Your task to perform on an android device: change the clock display to analog Image 0: 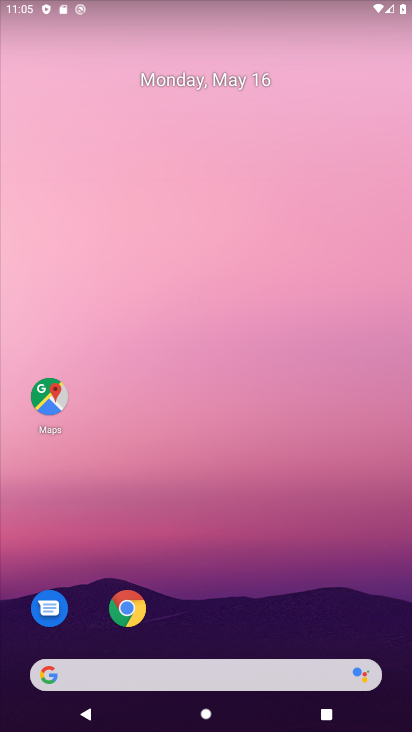
Step 0: press home button
Your task to perform on an android device: change the clock display to analog Image 1: 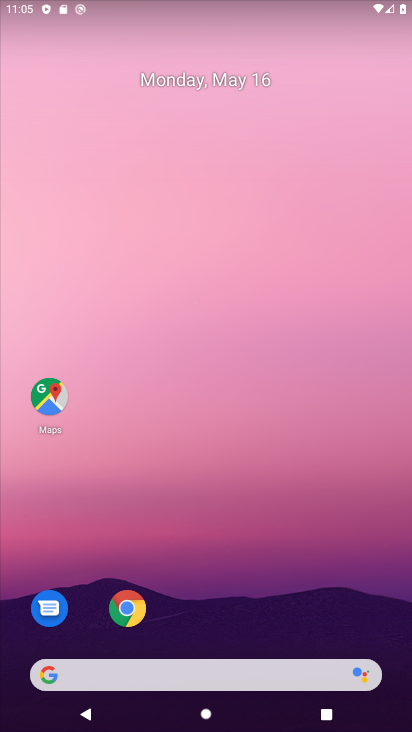
Step 1: drag from (201, 676) to (277, 84)
Your task to perform on an android device: change the clock display to analog Image 2: 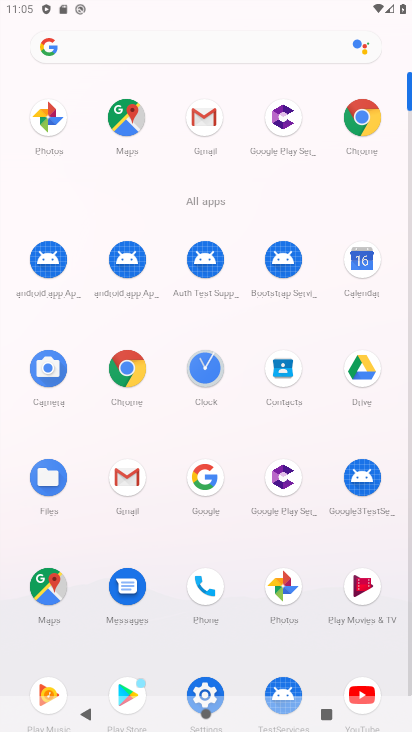
Step 2: click (202, 377)
Your task to perform on an android device: change the clock display to analog Image 3: 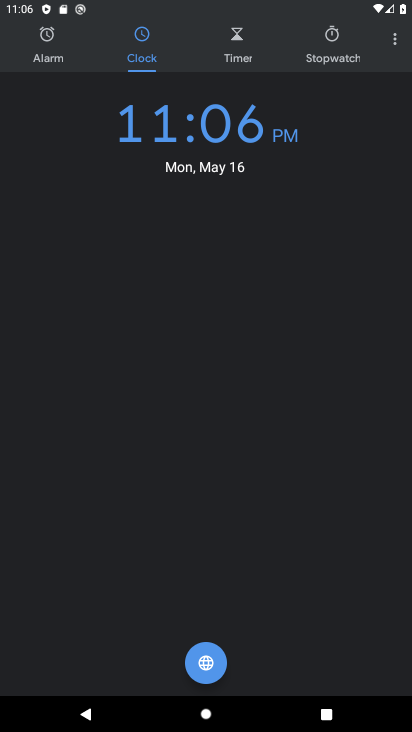
Step 3: click (391, 39)
Your task to perform on an android device: change the clock display to analog Image 4: 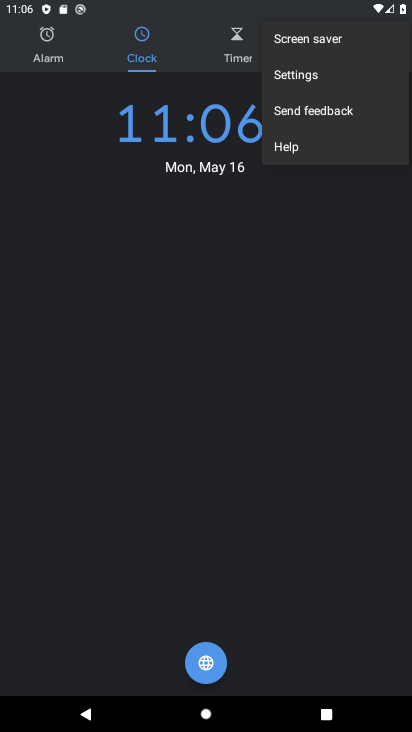
Step 4: click (310, 74)
Your task to perform on an android device: change the clock display to analog Image 5: 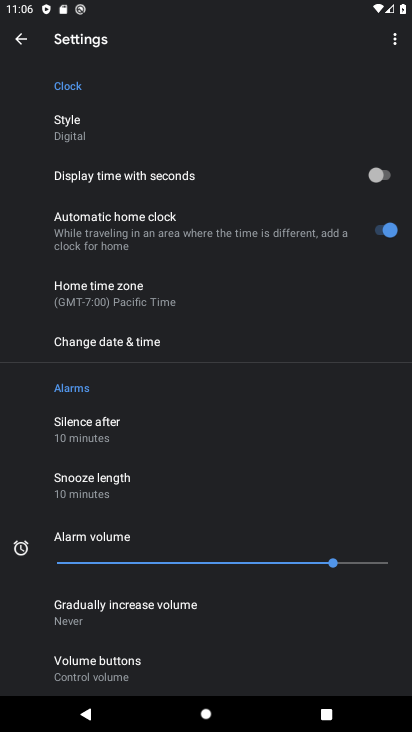
Step 5: click (89, 135)
Your task to perform on an android device: change the clock display to analog Image 6: 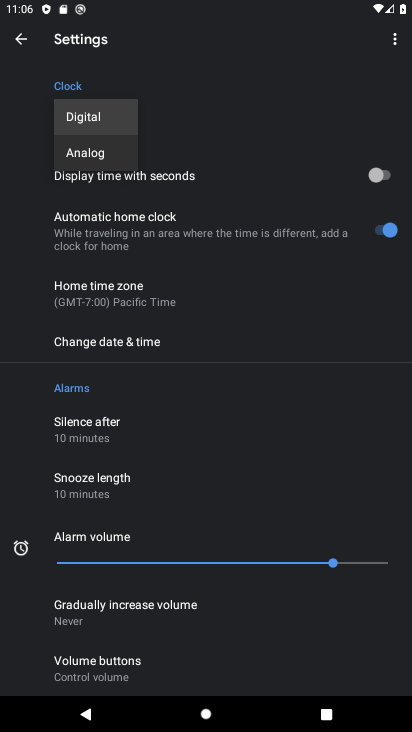
Step 6: click (96, 163)
Your task to perform on an android device: change the clock display to analog Image 7: 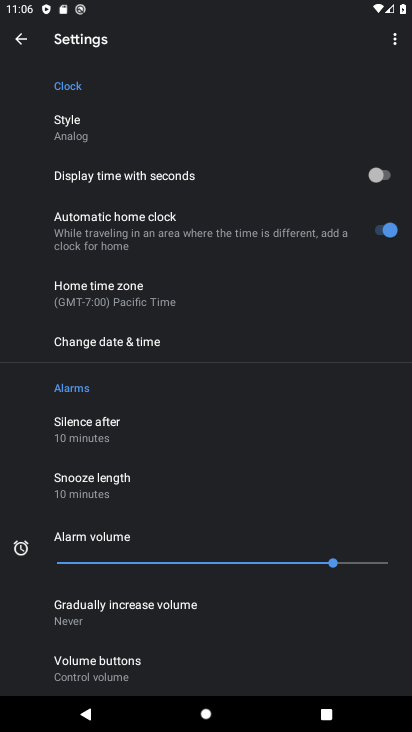
Step 7: task complete